Your task to perform on an android device: Is it going to rain tomorrow? Image 0: 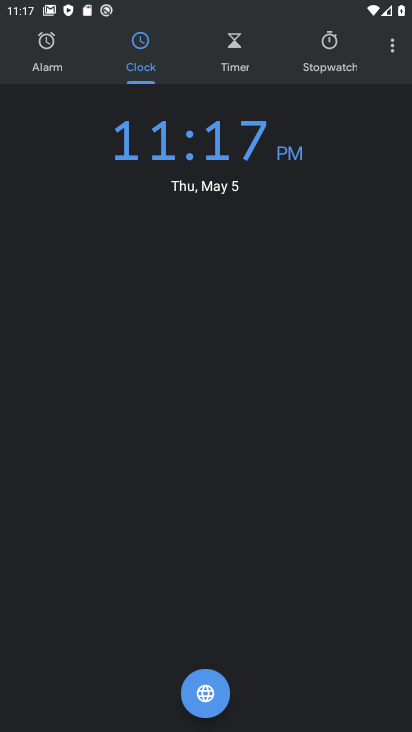
Step 0: press home button
Your task to perform on an android device: Is it going to rain tomorrow? Image 1: 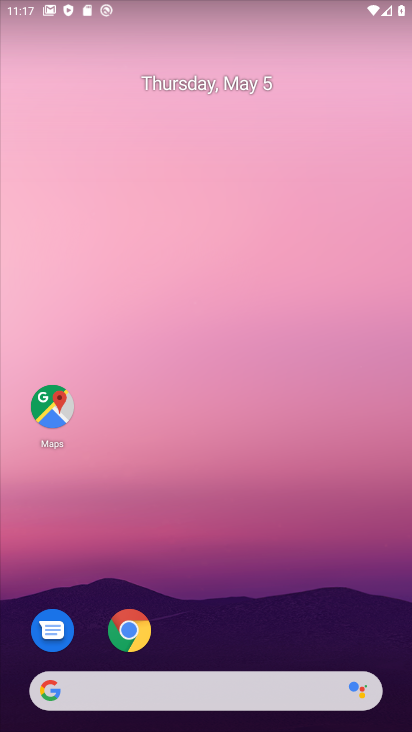
Step 1: drag from (235, 553) to (261, 125)
Your task to perform on an android device: Is it going to rain tomorrow? Image 2: 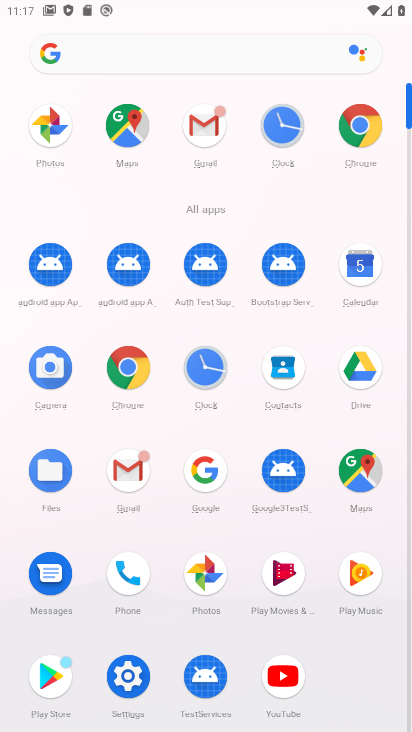
Step 2: click (129, 385)
Your task to perform on an android device: Is it going to rain tomorrow? Image 3: 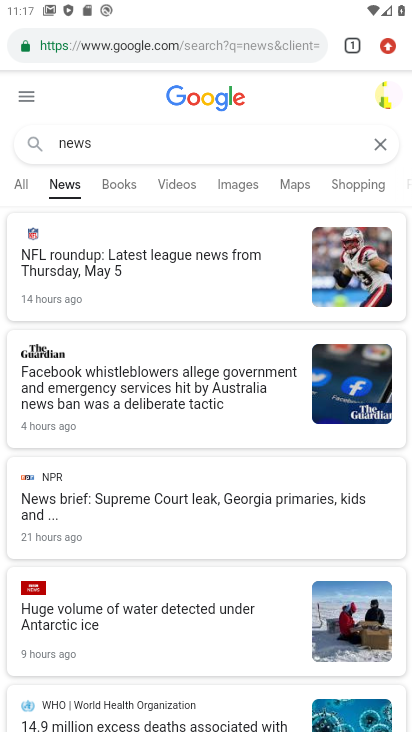
Step 3: click (208, 159)
Your task to perform on an android device: Is it going to rain tomorrow? Image 4: 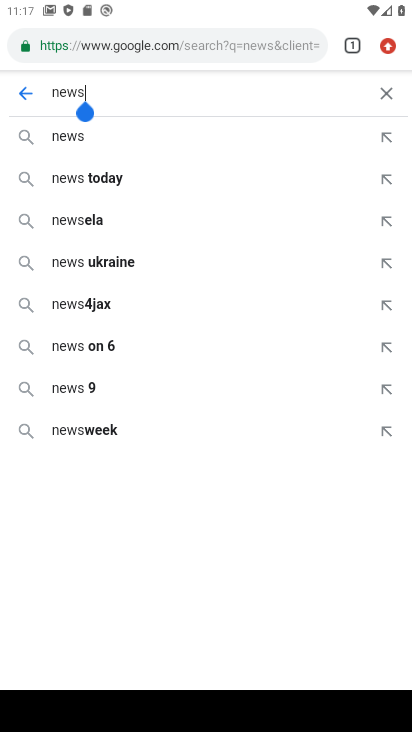
Step 4: click (385, 90)
Your task to perform on an android device: Is it going to rain tomorrow? Image 5: 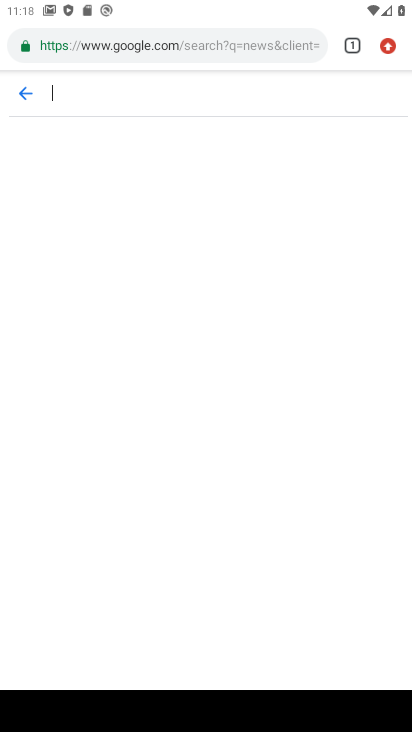
Step 5: type "weather"
Your task to perform on an android device: Is it going to rain tomorrow? Image 6: 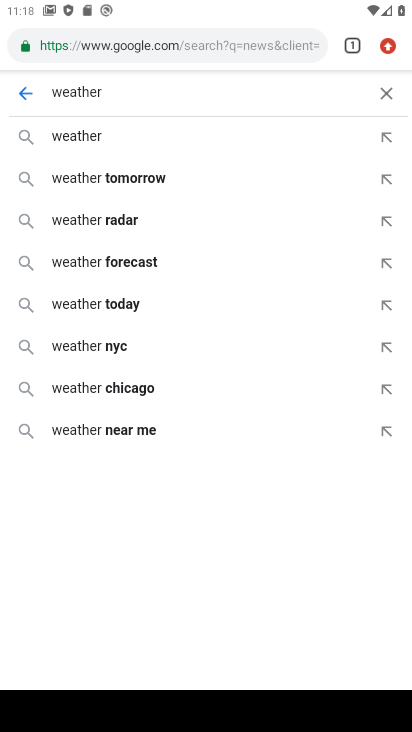
Step 6: click (145, 138)
Your task to perform on an android device: Is it going to rain tomorrow? Image 7: 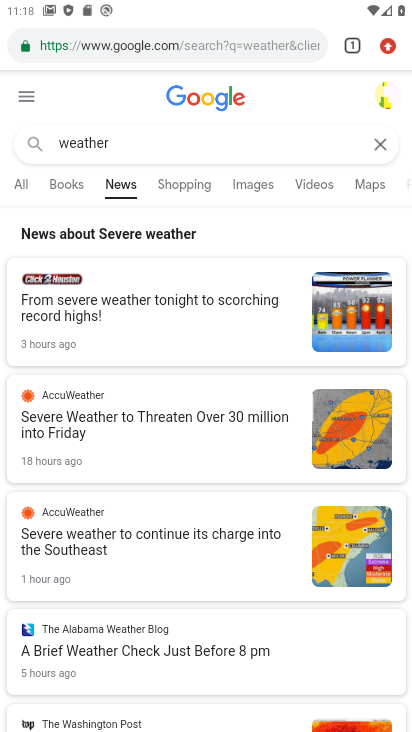
Step 7: click (12, 184)
Your task to perform on an android device: Is it going to rain tomorrow? Image 8: 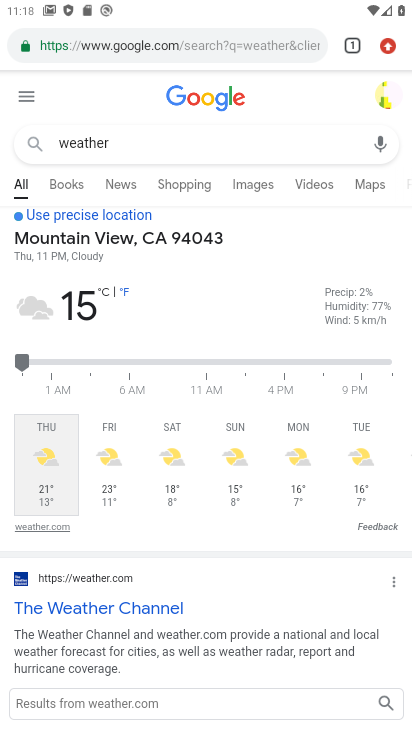
Step 8: task complete